Your task to perform on an android device: Toggle the flashlight Image 0: 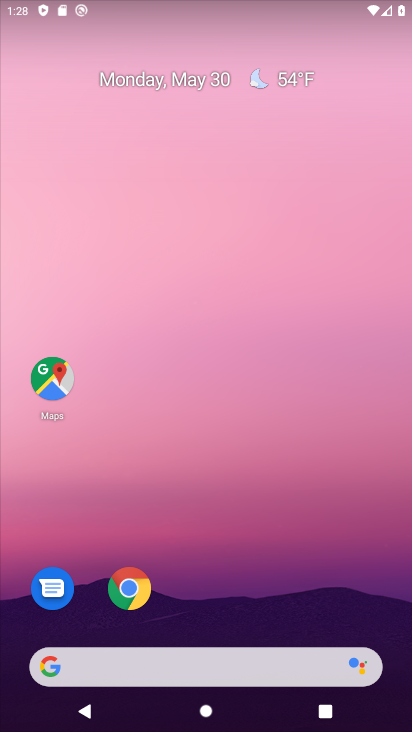
Step 0: drag from (227, 598) to (233, 64)
Your task to perform on an android device: Toggle the flashlight Image 1: 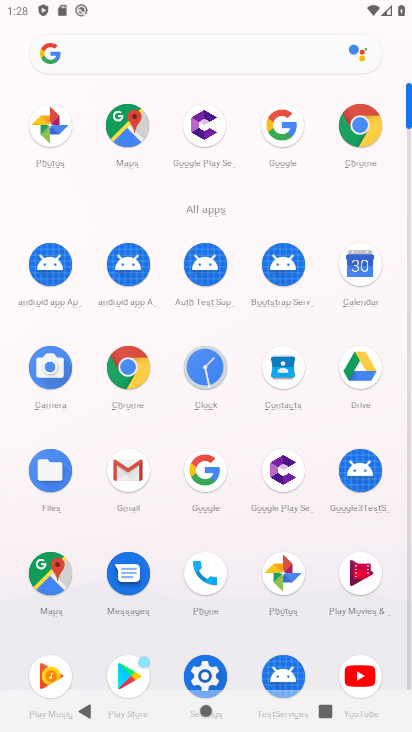
Step 1: click (201, 673)
Your task to perform on an android device: Toggle the flashlight Image 2: 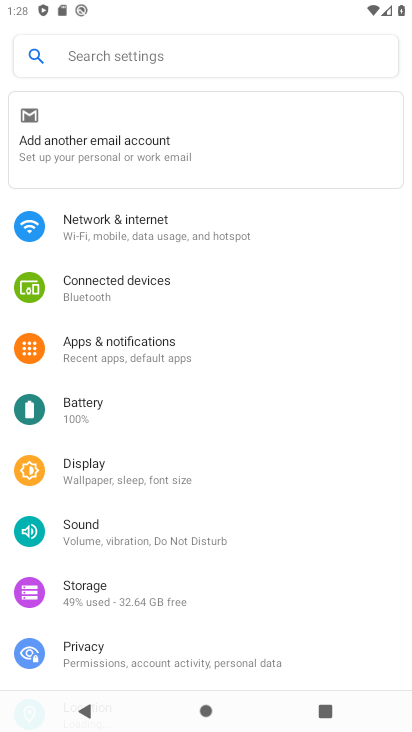
Step 2: click (199, 43)
Your task to perform on an android device: Toggle the flashlight Image 3: 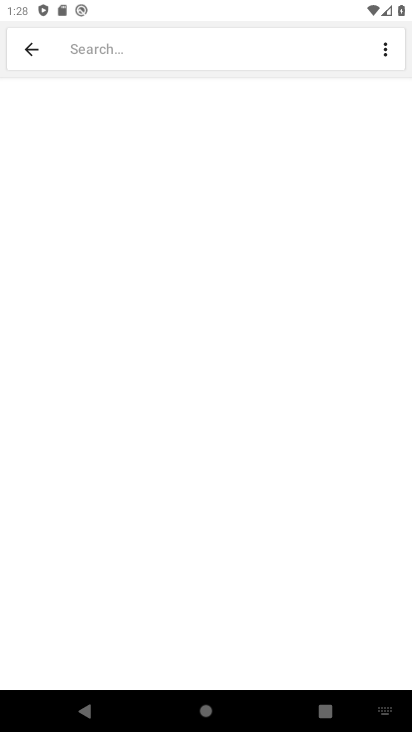
Step 3: type "flash"
Your task to perform on an android device: Toggle the flashlight Image 4: 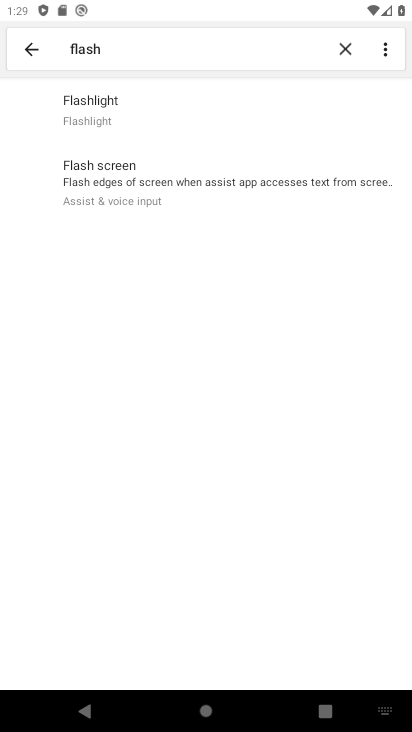
Step 4: task complete